Your task to perform on an android device: turn off javascript in the chrome app Image 0: 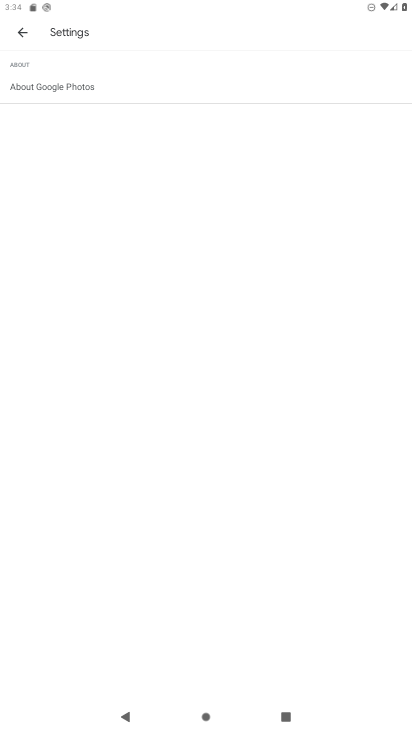
Step 0: press home button
Your task to perform on an android device: turn off javascript in the chrome app Image 1: 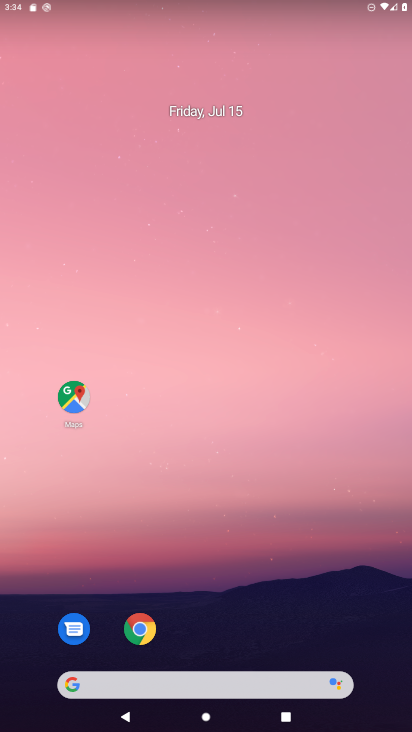
Step 1: drag from (233, 527) to (210, 38)
Your task to perform on an android device: turn off javascript in the chrome app Image 2: 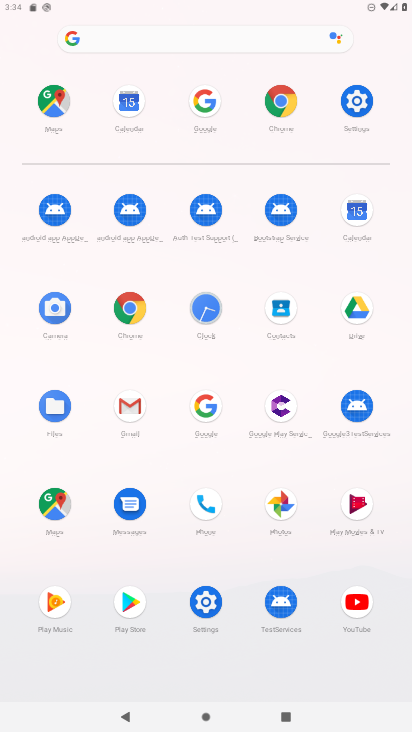
Step 2: click (282, 96)
Your task to perform on an android device: turn off javascript in the chrome app Image 3: 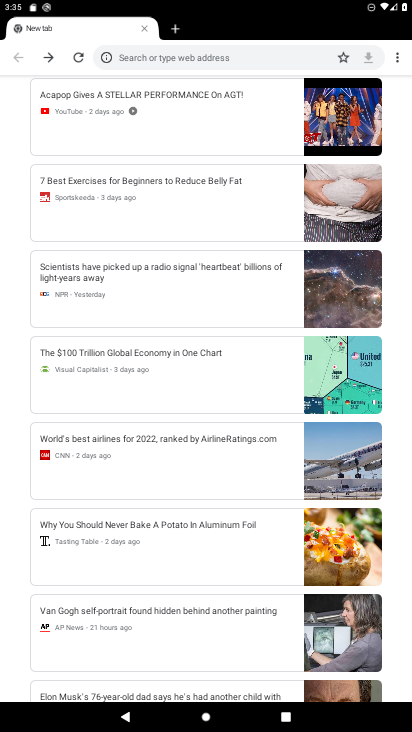
Step 3: drag from (397, 51) to (304, 271)
Your task to perform on an android device: turn off javascript in the chrome app Image 4: 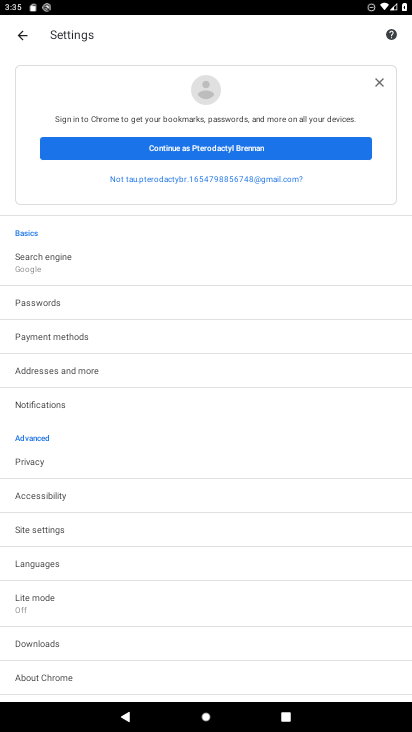
Step 4: click (56, 532)
Your task to perform on an android device: turn off javascript in the chrome app Image 5: 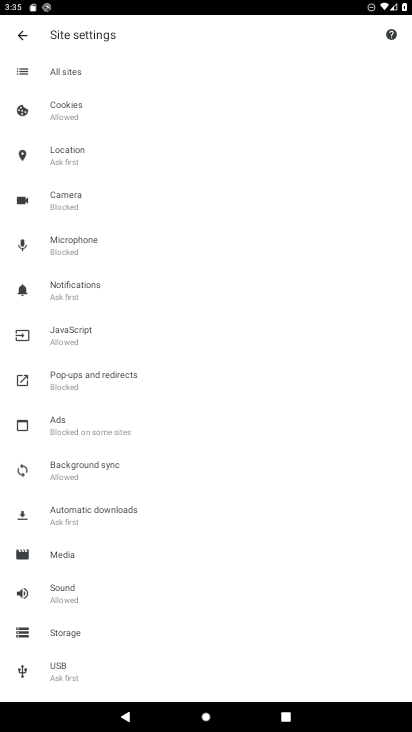
Step 5: click (89, 336)
Your task to perform on an android device: turn off javascript in the chrome app Image 6: 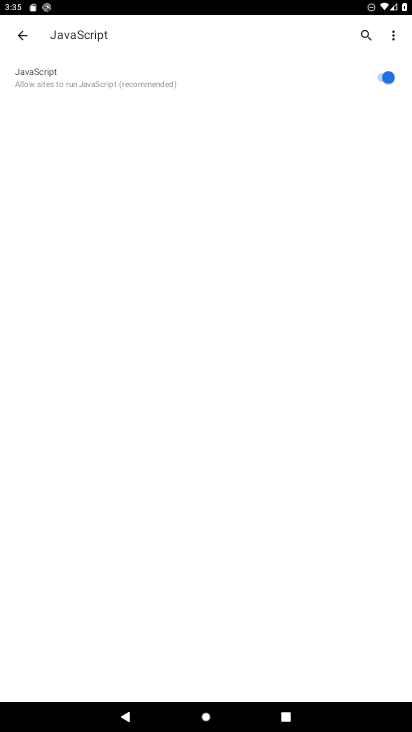
Step 6: click (382, 74)
Your task to perform on an android device: turn off javascript in the chrome app Image 7: 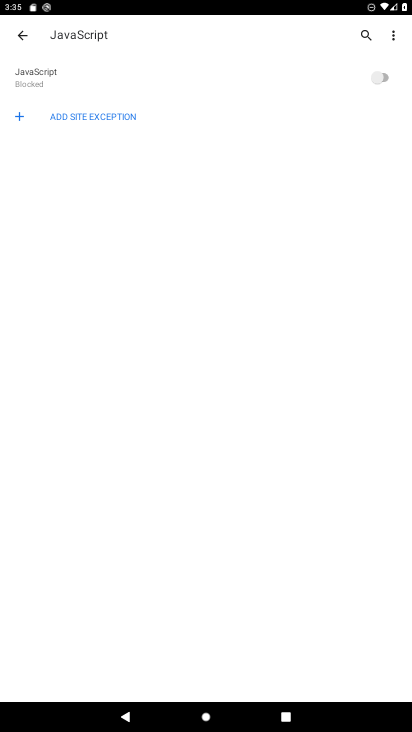
Step 7: task complete